Your task to perform on an android device: Go to Wikipedia Image 0: 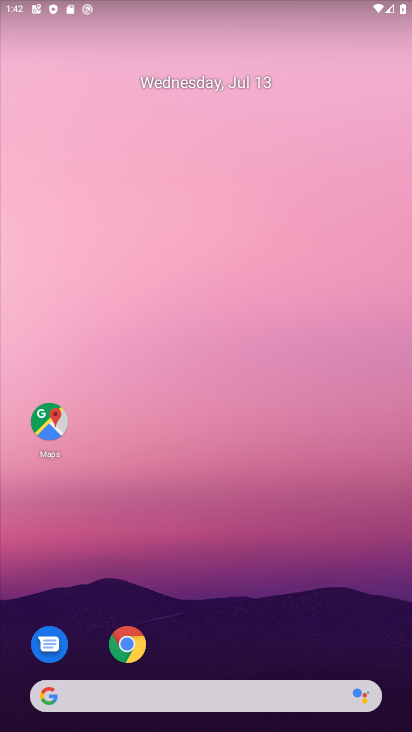
Step 0: click (132, 642)
Your task to perform on an android device: Go to Wikipedia Image 1: 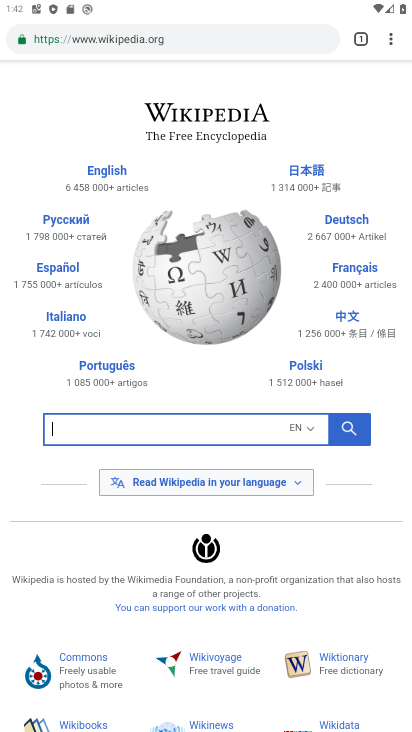
Step 1: task complete